Your task to perform on an android device: What's the weather going to be tomorrow? Image 0: 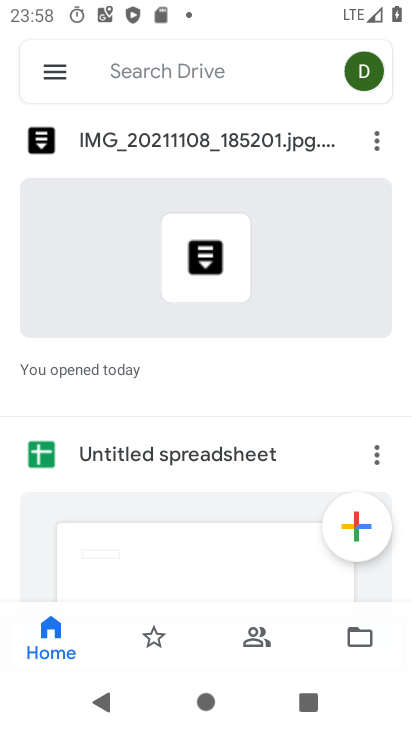
Step 0: press home button
Your task to perform on an android device: What's the weather going to be tomorrow? Image 1: 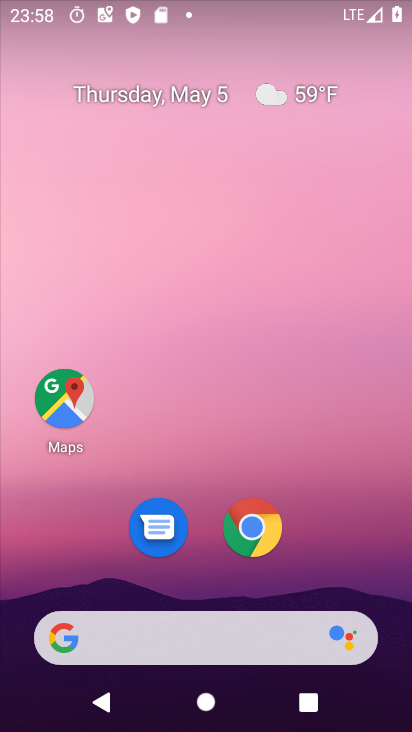
Step 1: drag from (213, 586) to (219, 67)
Your task to perform on an android device: What's the weather going to be tomorrow? Image 2: 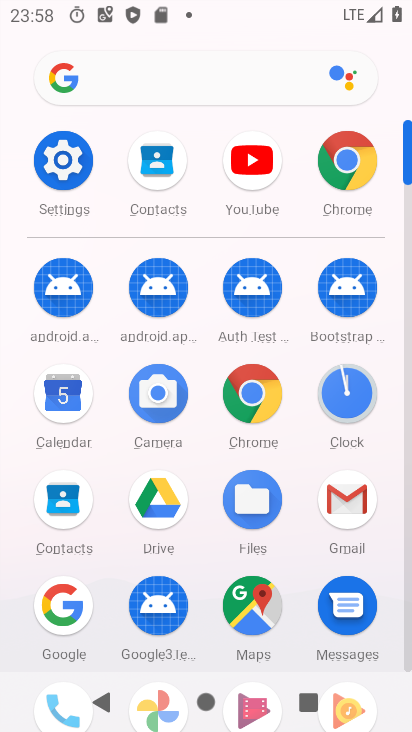
Step 2: click (158, 87)
Your task to perform on an android device: What's the weather going to be tomorrow? Image 3: 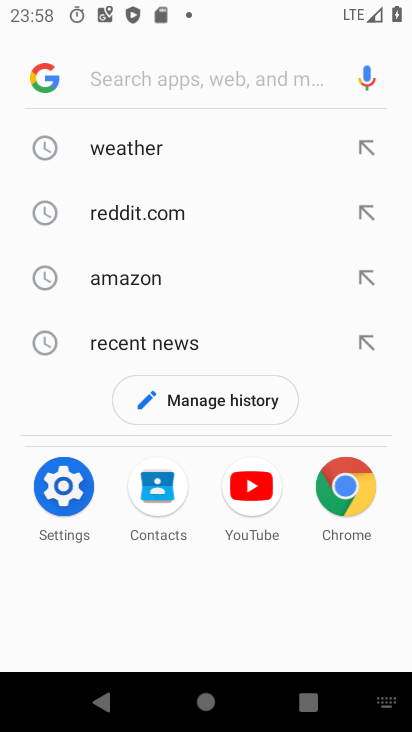
Step 3: click (139, 143)
Your task to perform on an android device: What's the weather going to be tomorrow? Image 4: 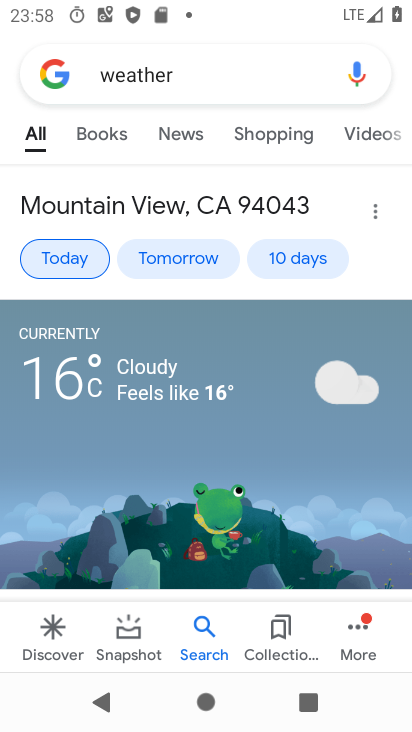
Step 4: click (176, 254)
Your task to perform on an android device: What's the weather going to be tomorrow? Image 5: 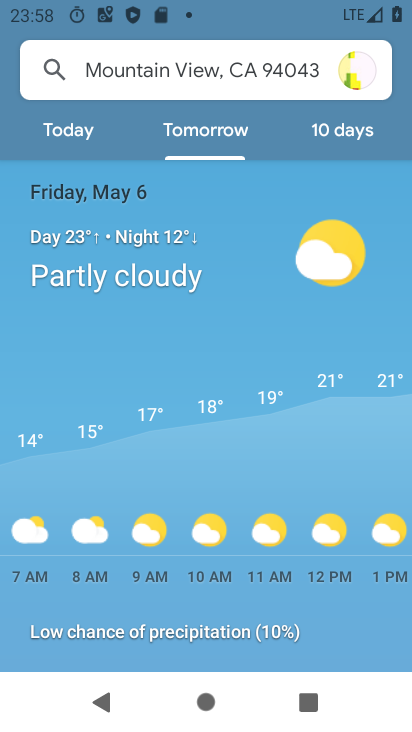
Step 5: task complete